Your task to perform on an android device: install app "Etsy: Buy & Sell Unique Items" Image 0: 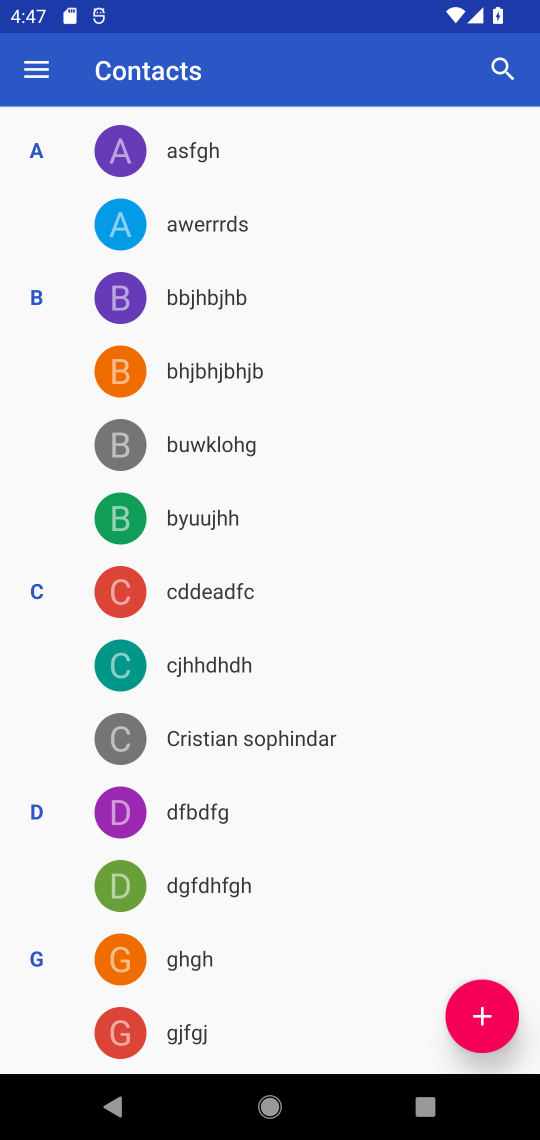
Step 0: press home button
Your task to perform on an android device: install app "Etsy: Buy & Sell Unique Items" Image 1: 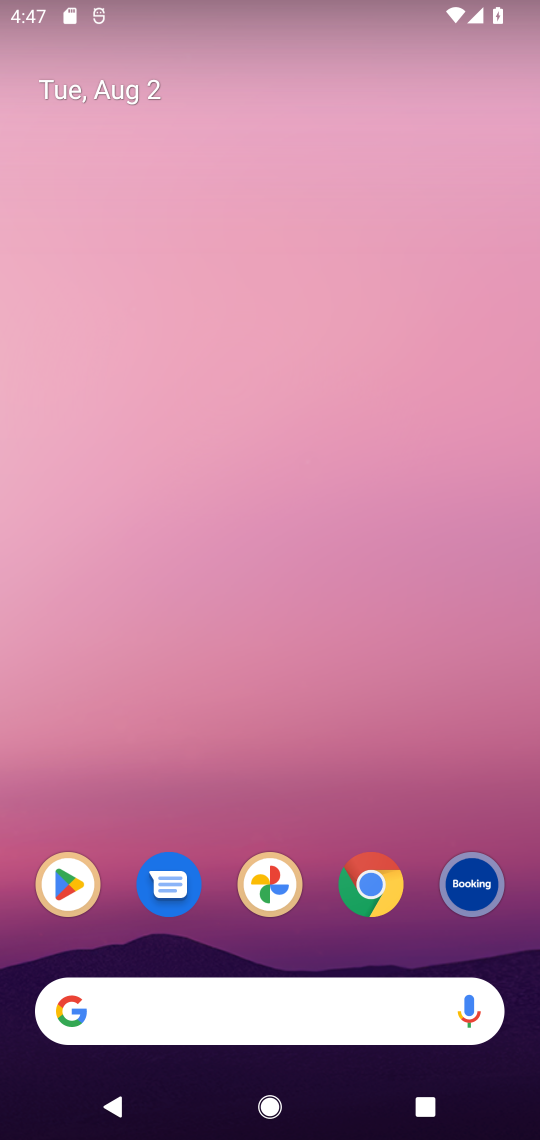
Step 1: drag from (357, 789) to (384, 12)
Your task to perform on an android device: install app "Etsy: Buy & Sell Unique Items" Image 2: 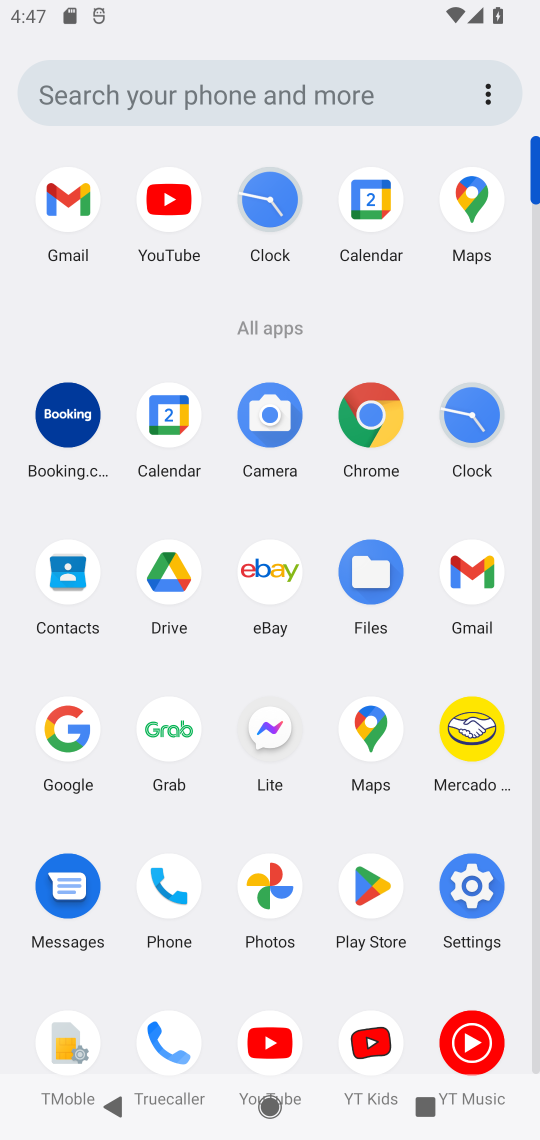
Step 2: click (372, 896)
Your task to perform on an android device: install app "Etsy: Buy & Sell Unique Items" Image 3: 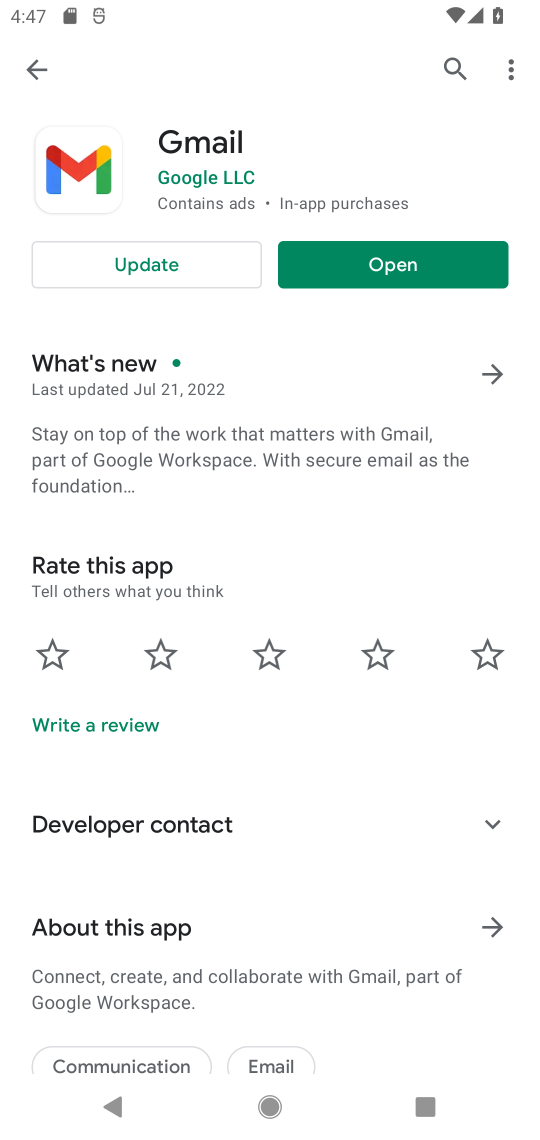
Step 3: click (34, 70)
Your task to perform on an android device: install app "Etsy: Buy & Sell Unique Items" Image 4: 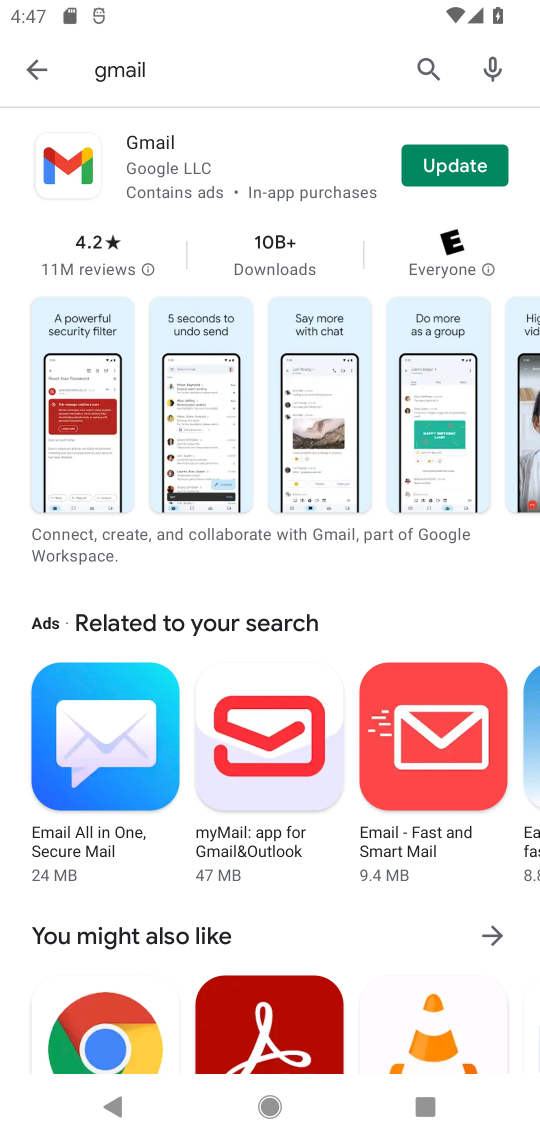
Step 4: click (29, 61)
Your task to perform on an android device: install app "Etsy: Buy & Sell Unique Items" Image 5: 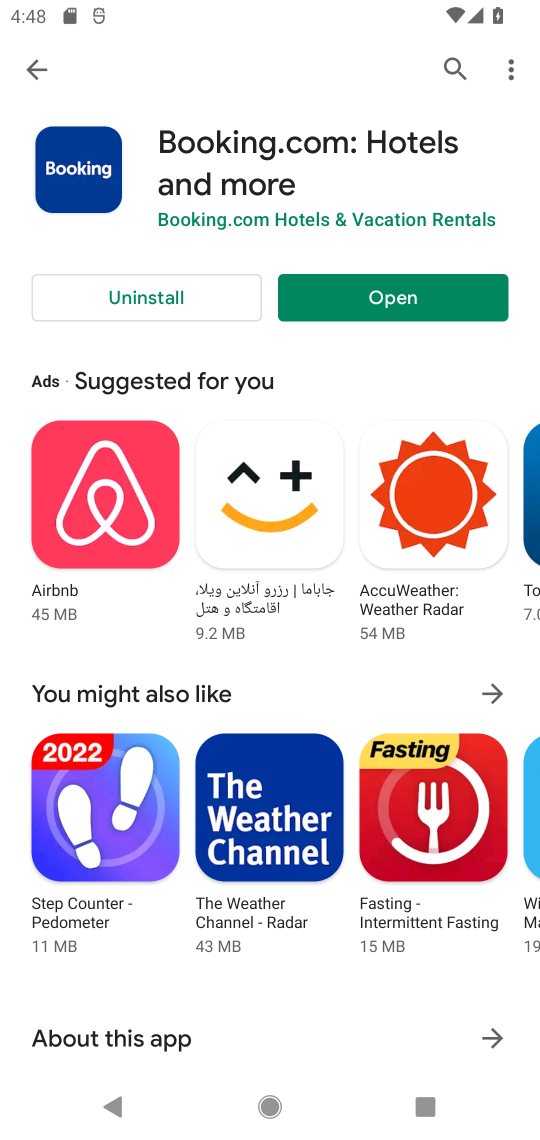
Step 5: click (35, 75)
Your task to perform on an android device: install app "Etsy: Buy & Sell Unique Items" Image 6: 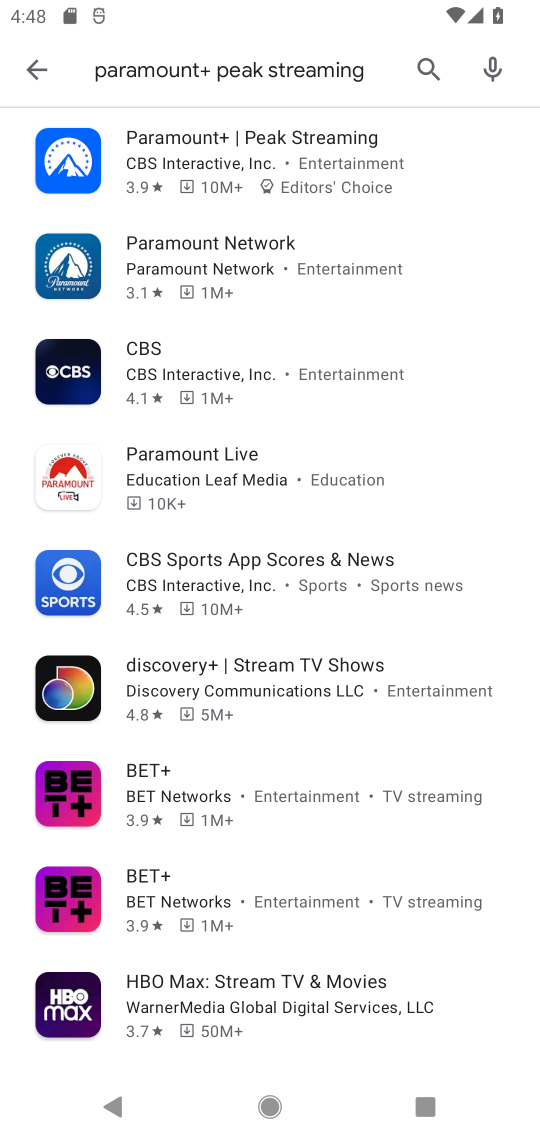
Step 6: click (35, 75)
Your task to perform on an android device: install app "Etsy: Buy & Sell Unique Items" Image 7: 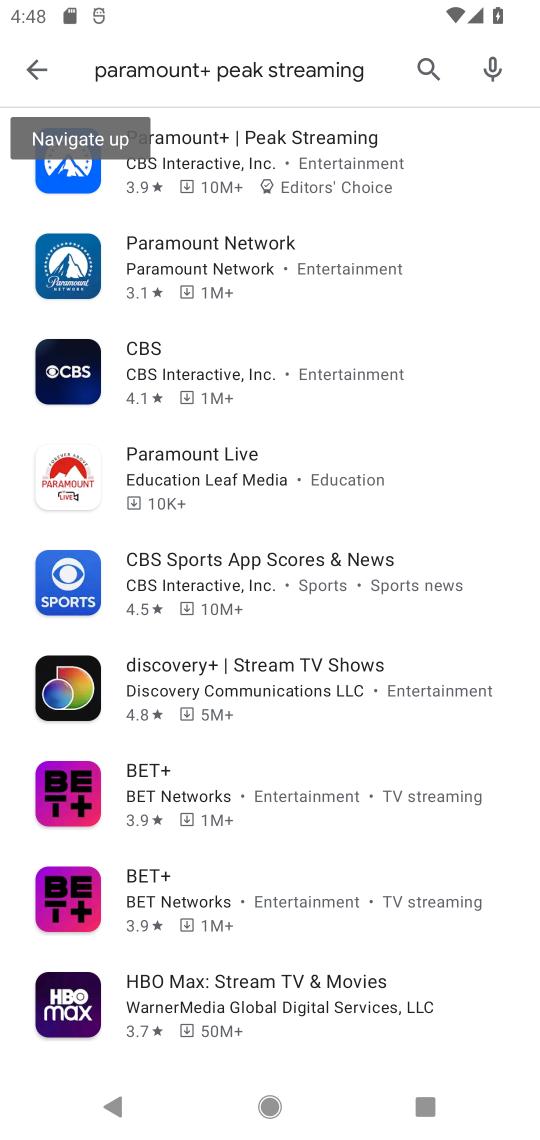
Step 7: click (35, 75)
Your task to perform on an android device: install app "Etsy: Buy & Sell Unique Items" Image 8: 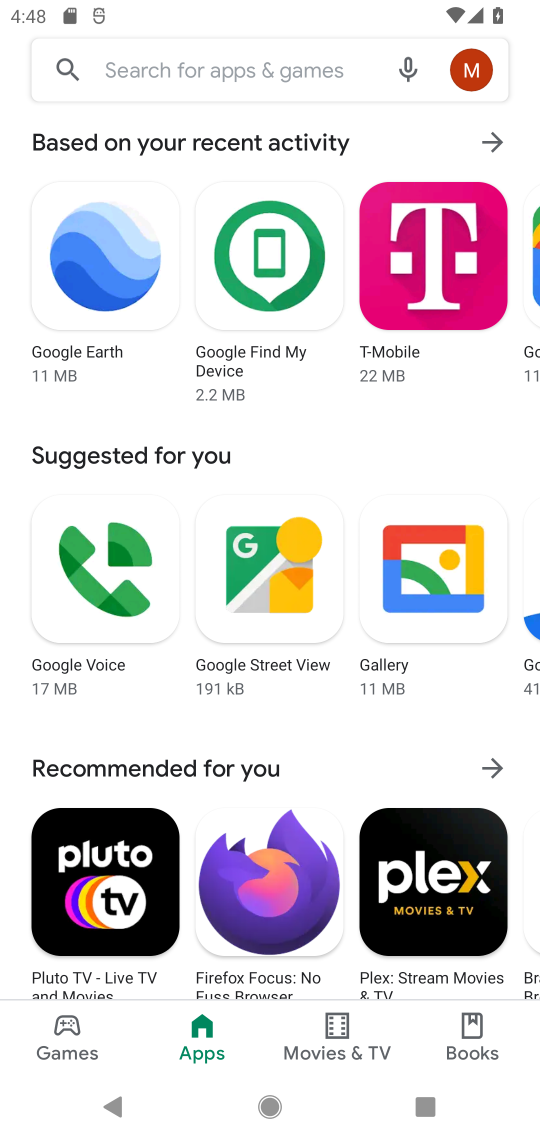
Step 8: click (147, 59)
Your task to perform on an android device: install app "Etsy: Buy & Sell Unique Items" Image 9: 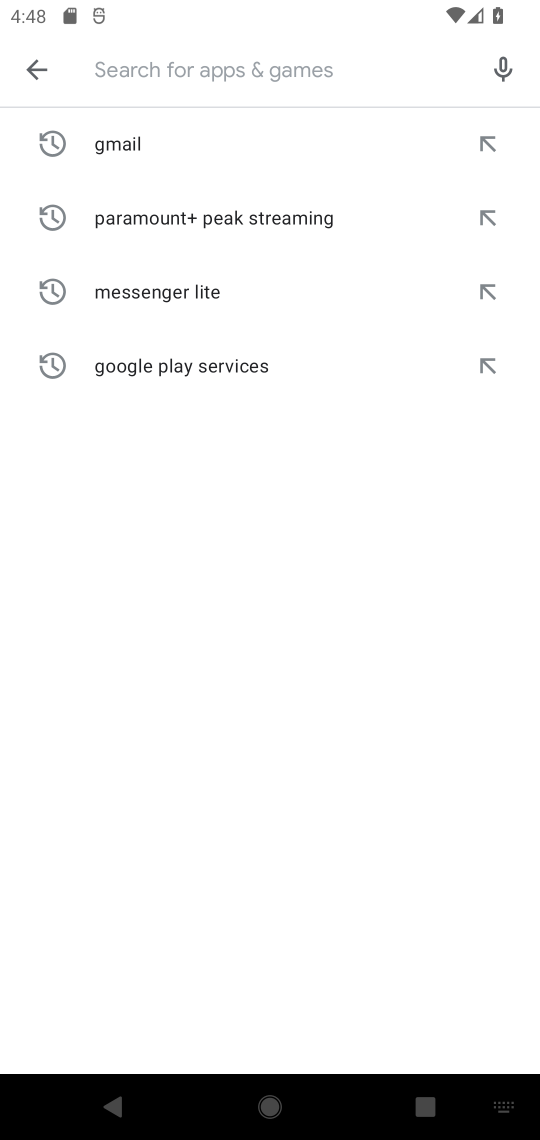
Step 9: type "Etsy: Buy & Sell Unique Items""
Your task to perform on an android device: install app "Etsy: Buy & Sell Unique Items" Image 10: 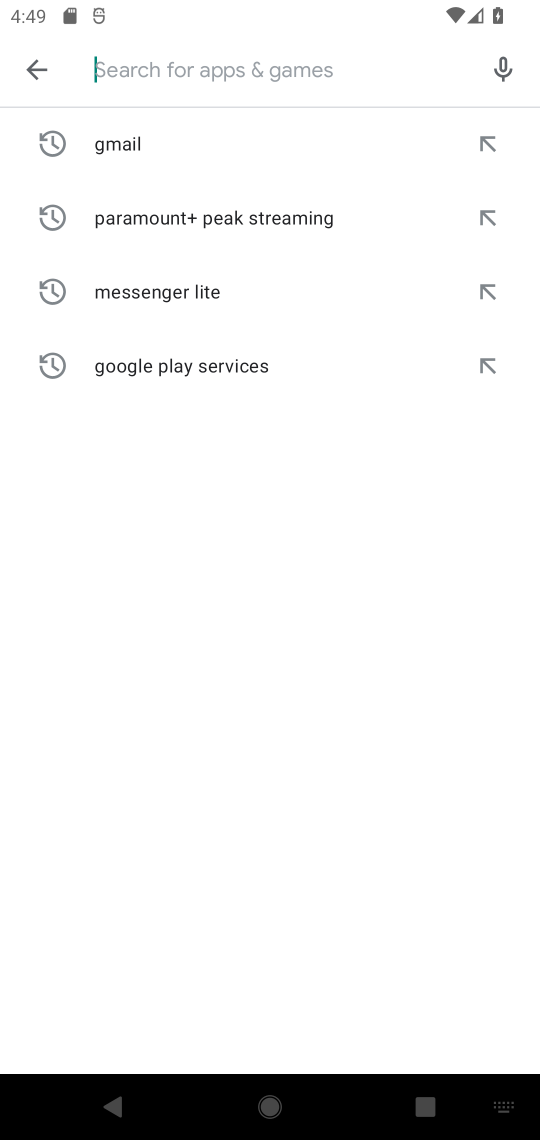
Step 10: click (187, 70)
Your task to perform on an android device: install app "Etsy: Buy & Sell Unique Items" Image 11: 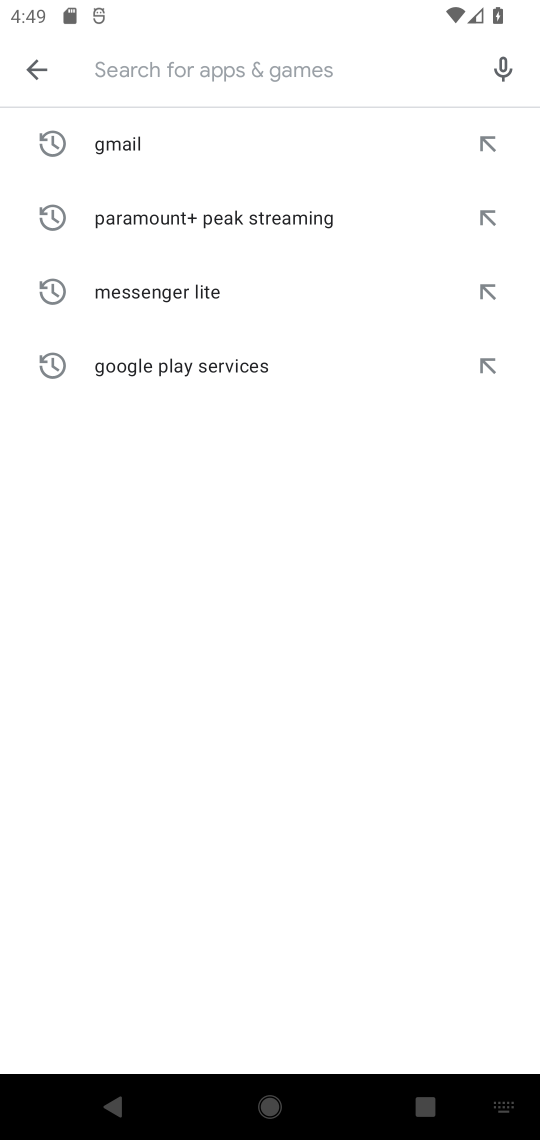
Step 11: type "Etsy: Buy & Sell Unique Items""
Your task to perform on an android device: install app "Etsy: Buy & Sell Unique Items" Image 12: 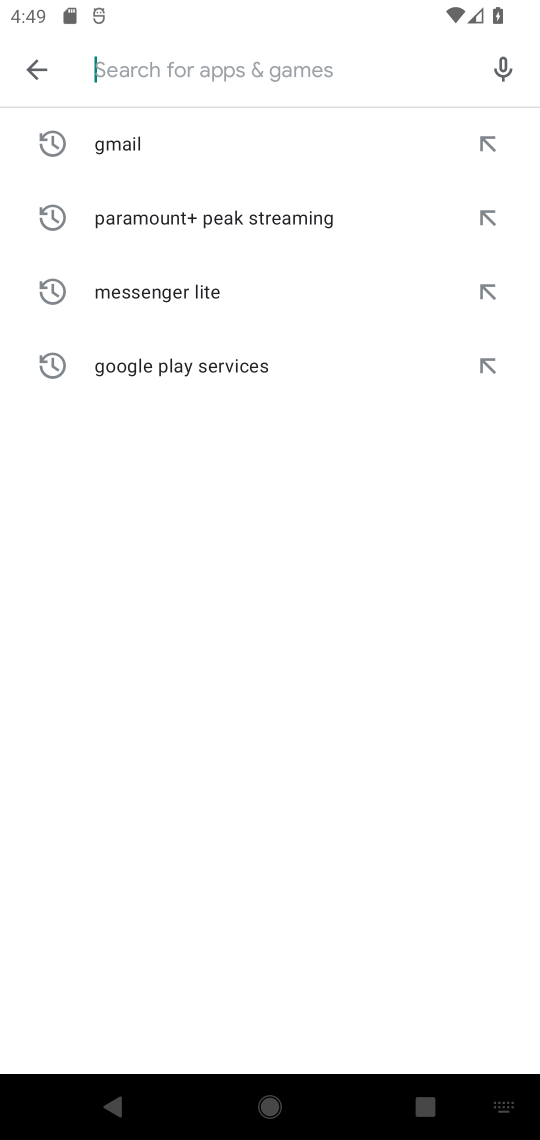
Step 12: type "Etsy"
Your task to perform on an android device: install app "Etsy: Buy & Sell Unique Items" Image 13: 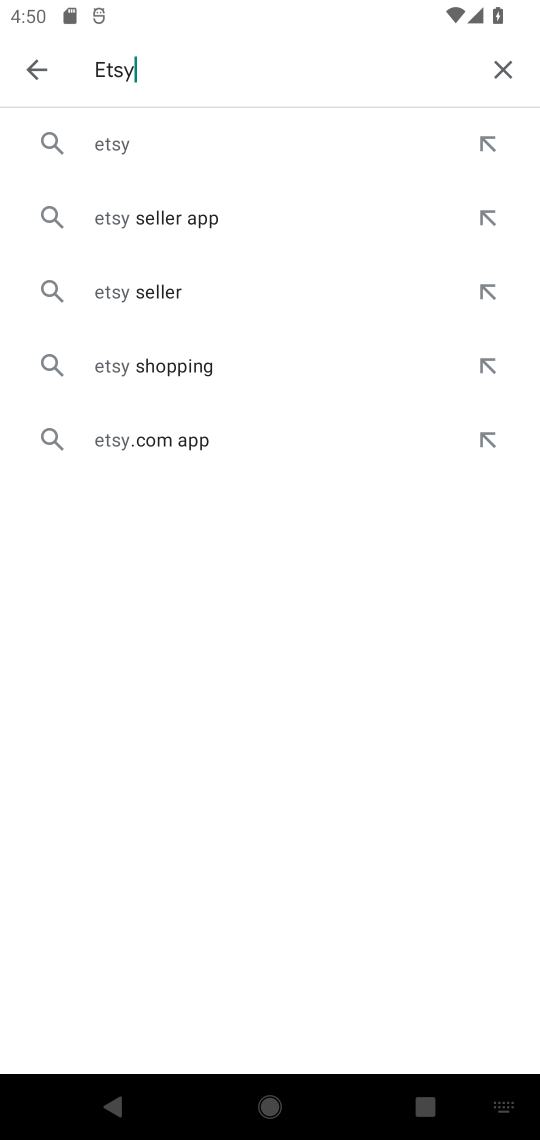
Step 13: click (115, 155)
Your task to perform on an android device: install app "Etsy: Buy & Sell Unique Items" Image 14: 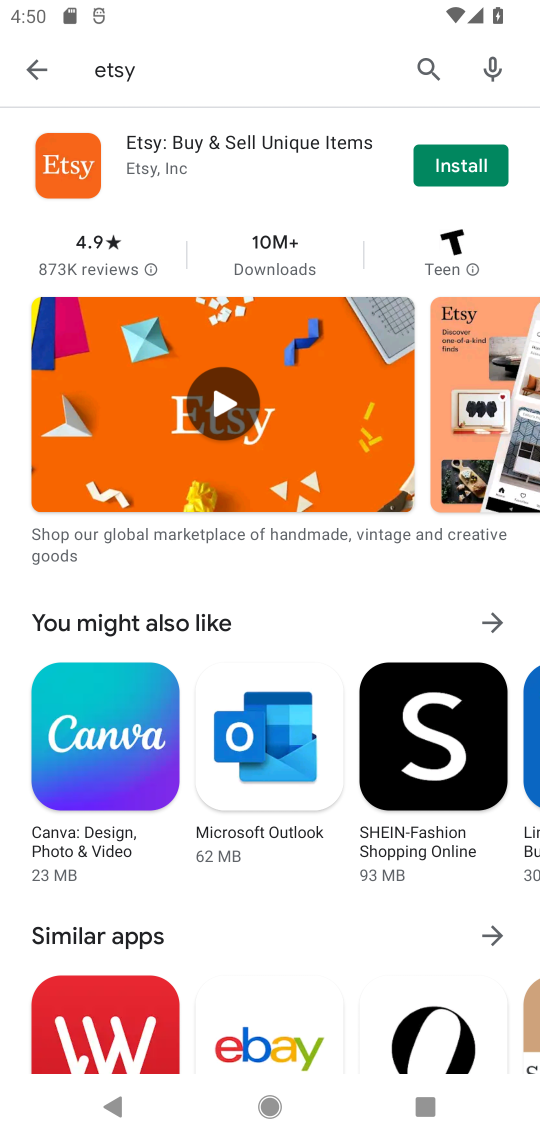
Step 14: click (501, 161)
Your task to perform on an android device: install app "Etsy: Buy & Sell Unique Items" Image 15: 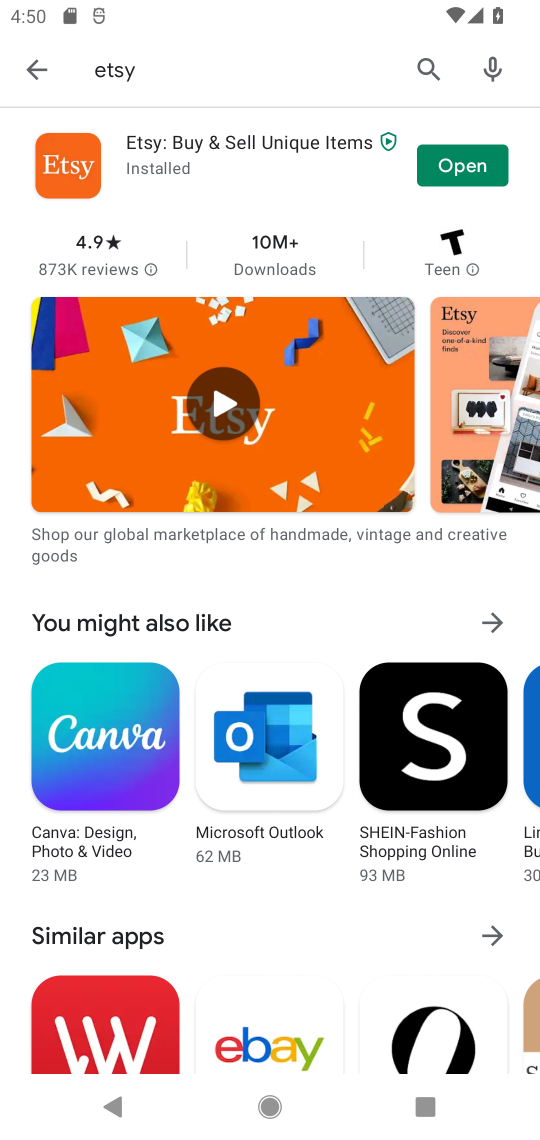
Step 15: task complete